Your task to perform on an android device: What is the news today? Image 0: 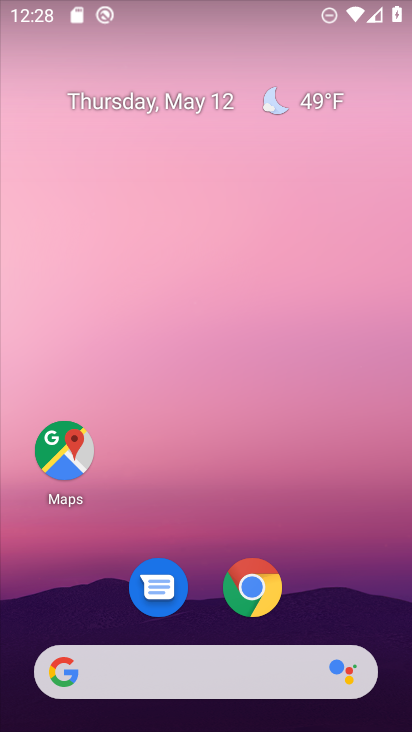
Step 0: drag from (322, 585) to (306, 263)
Your task to perform on an android device: What is the news today? Image 1: 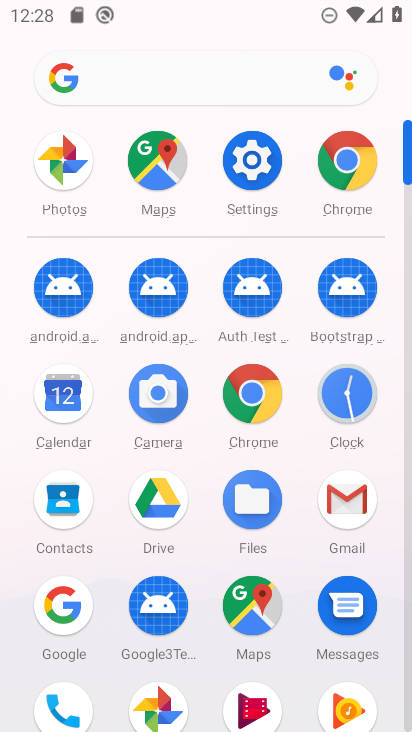
Step 1: click (333, 145)
Your task to perform on an android device: What is the news today? Image 2: 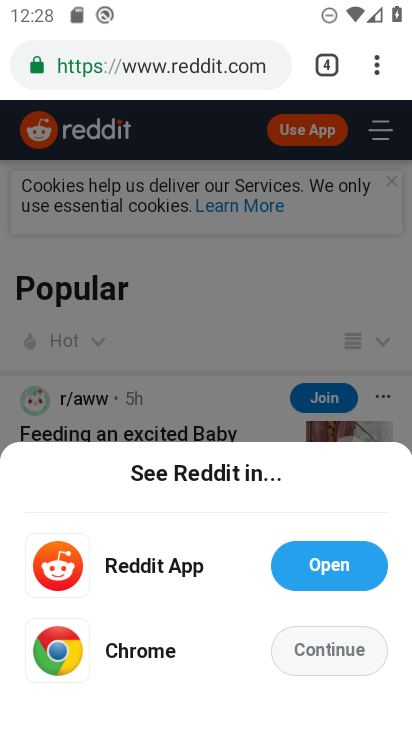
Step 2: click (361, 64)
Your task to perform on an android device: What is the news today? Image 3: 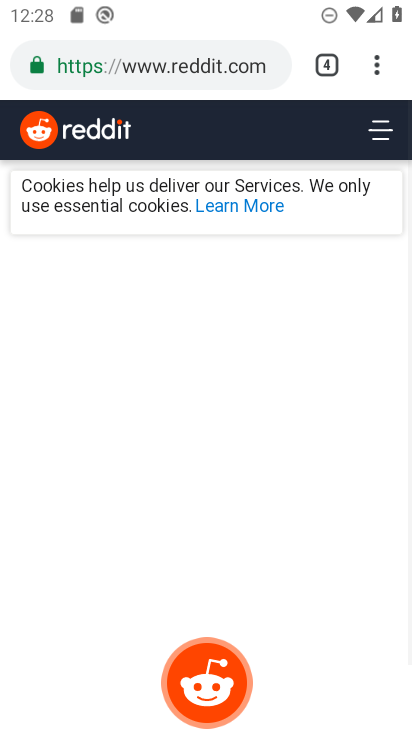
Step 3: click (360, 55)
Your task to perform on an android device: What is the news today? Image 4: 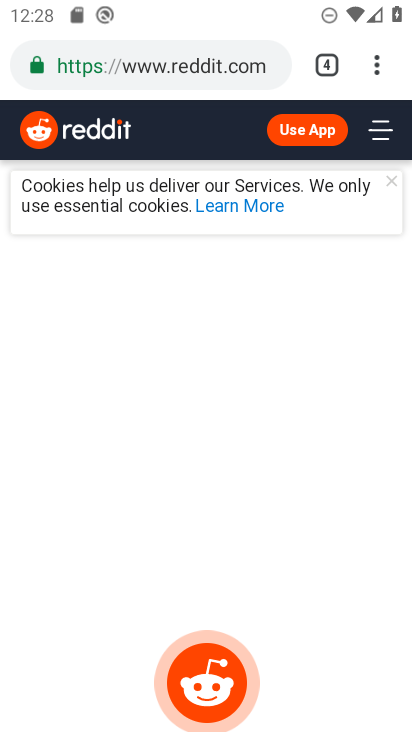
Step 4: click (356, 67)
Your task to perform on an android device: What is the news today? Image 5: 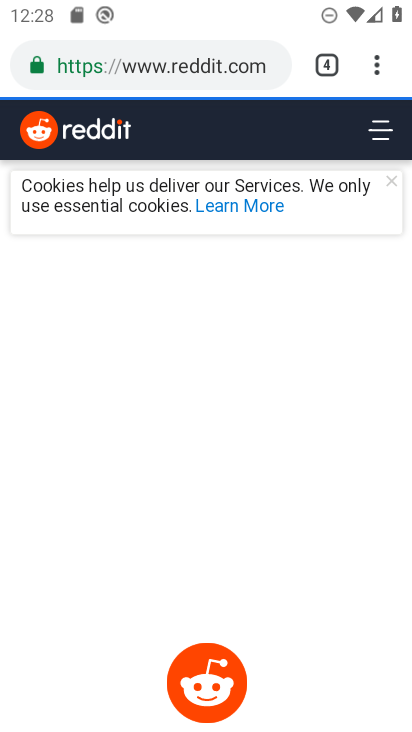
Step 5: click (396, 59)
Your task to perform on an android device: What is the news today? Image 6: 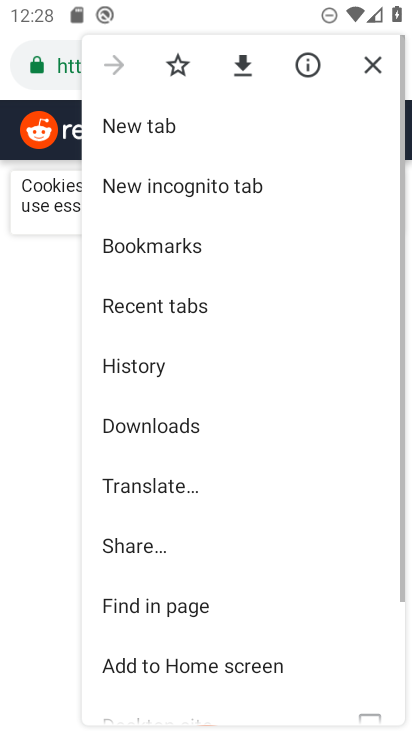
Step 6: click (180, 122)
Your task to perform on an android device: What is the news today? Image 7: 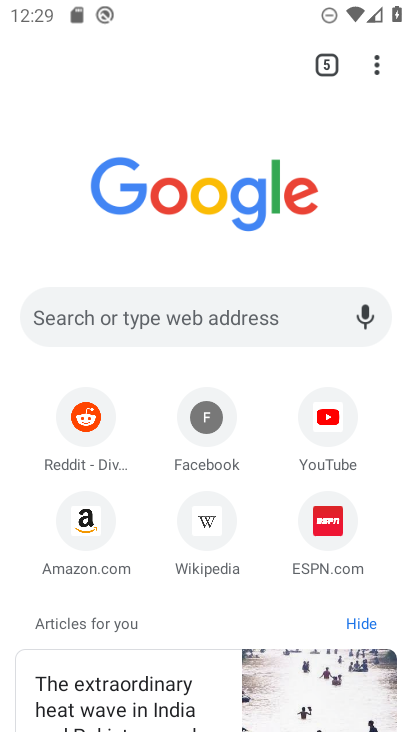
Step 7: click (233, 315)
Your task to perform on an android device: What is the news today? Image 8: 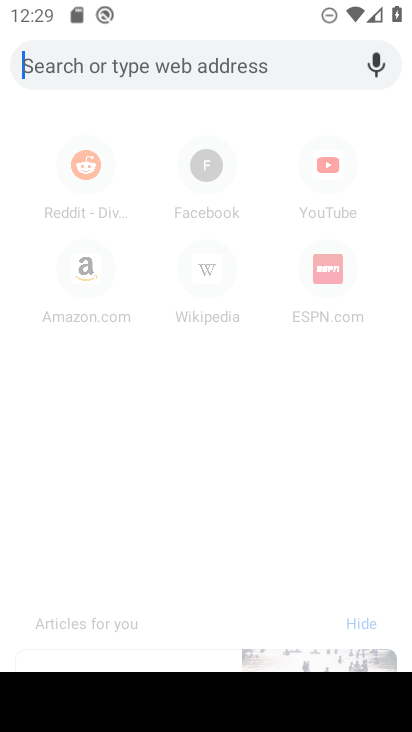
Step 8: click (182, 59)
Your task to perform on an android device: What is the news today? Image 9: 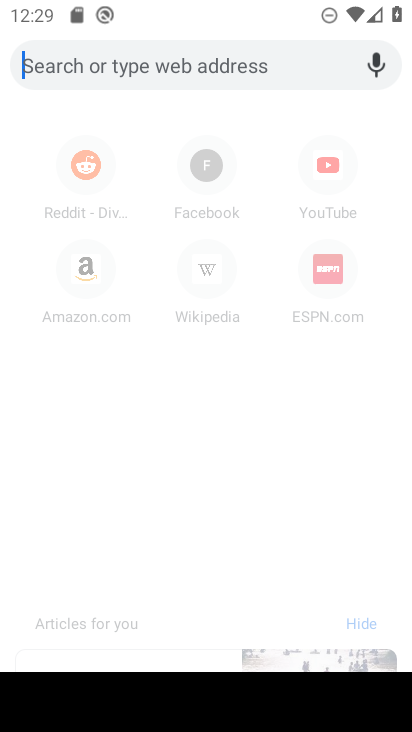
Step 9: type "What is the news today?"
Your task to perform on an android device: What is the news today? Image 10: 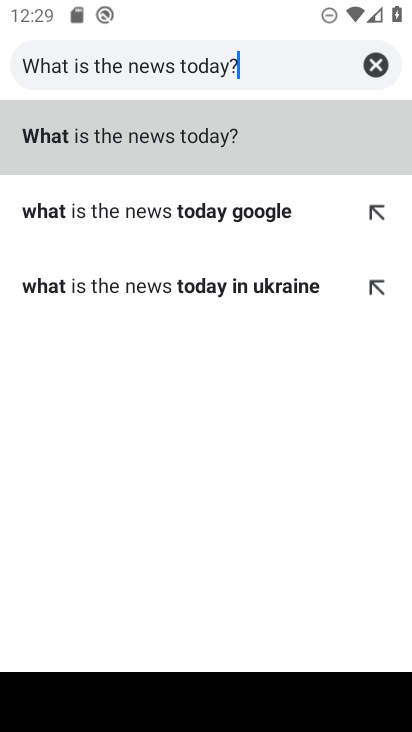
Step 10: click (228, 227)
Your task to perform on an android device: What is the news today? Image 11: 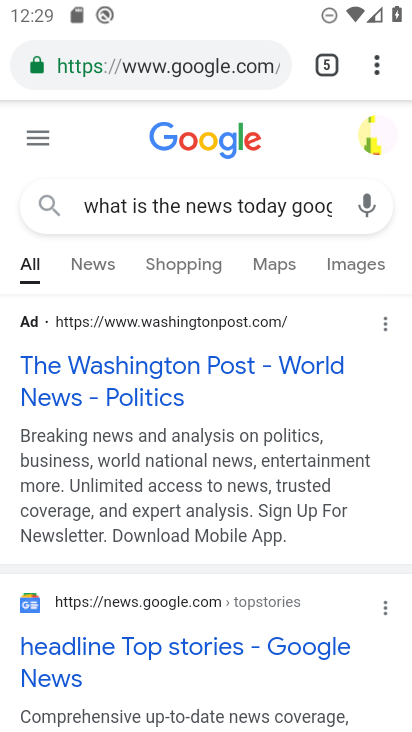
Step 11: task complete